Your task to perform on an android device: Go to battery settings Image 0: 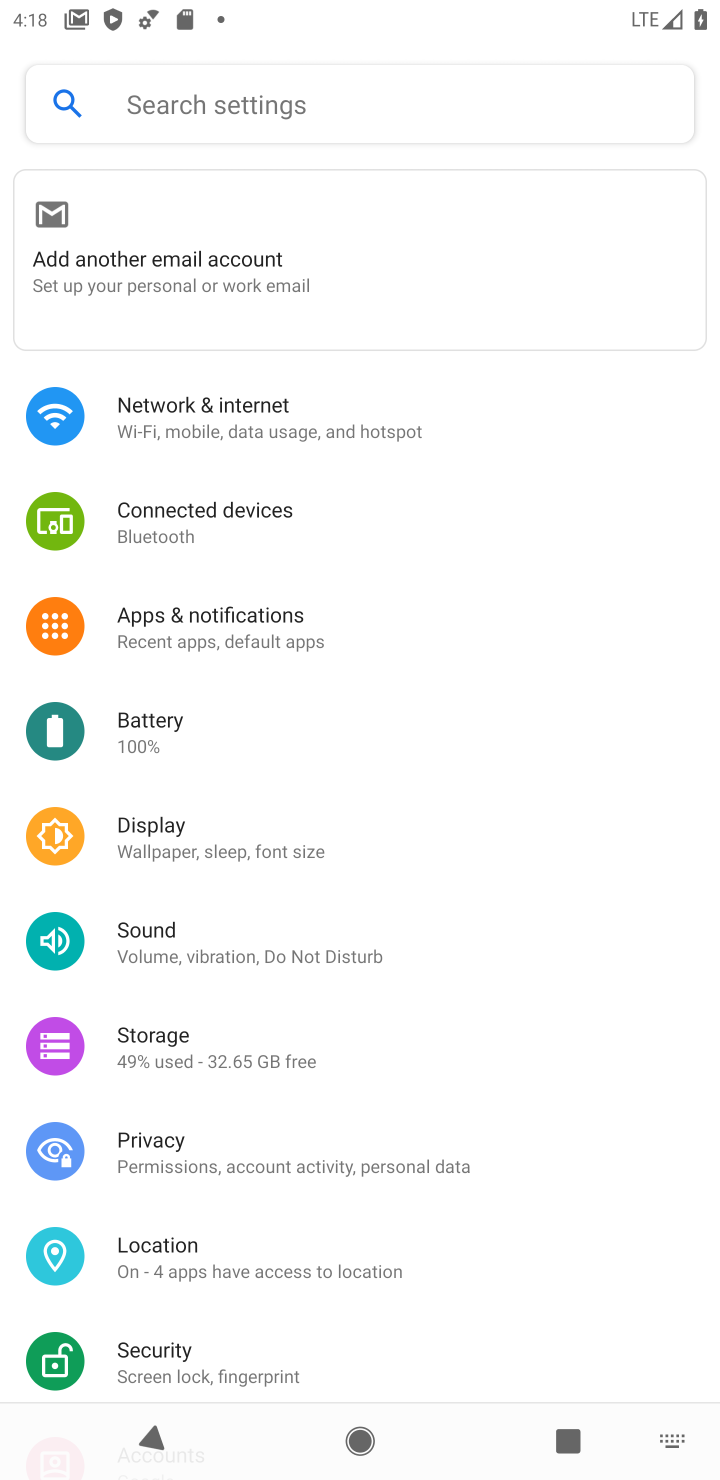
Step 0: click (185, 748)
Your task to perform on an android device: Go to battery settings Image 1: 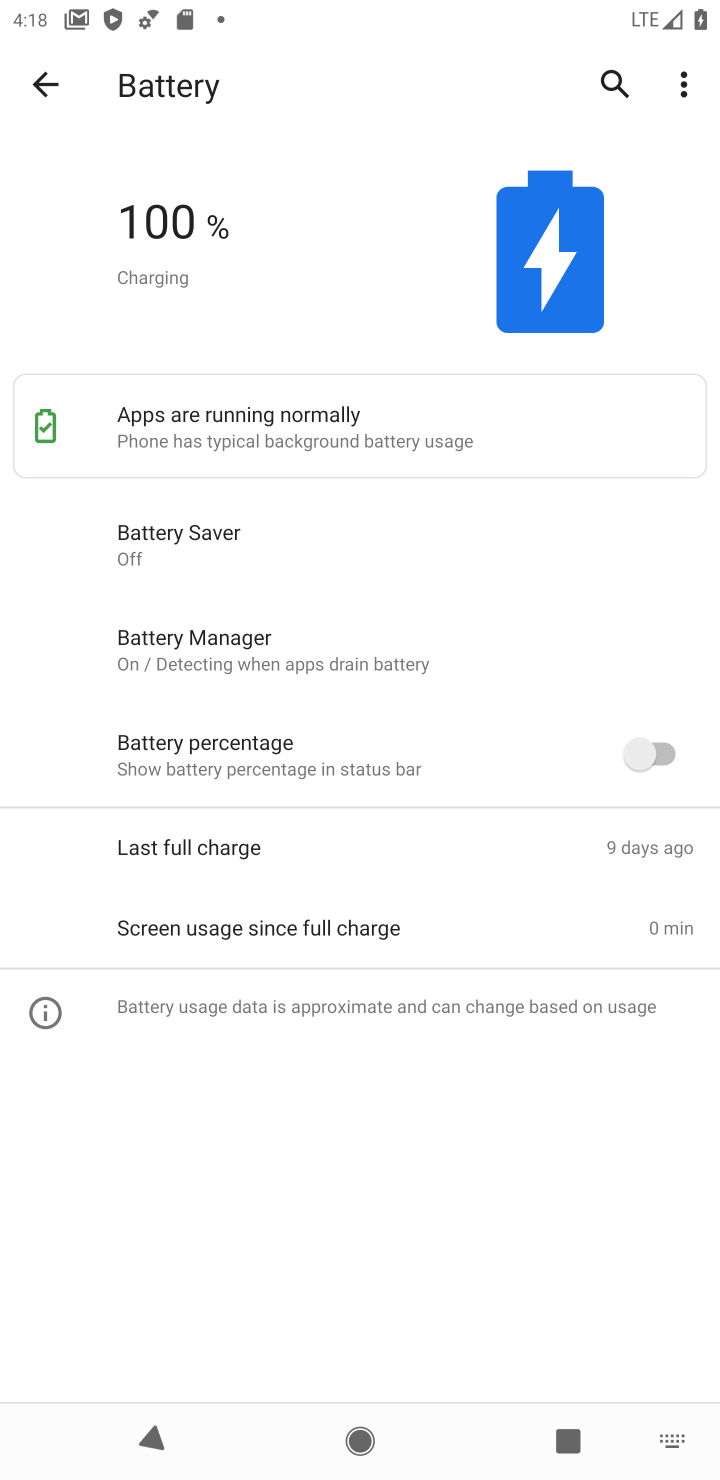
Step 1: task complete